Your task to perform on an android device: turn on translation in the chrome app Image 0: 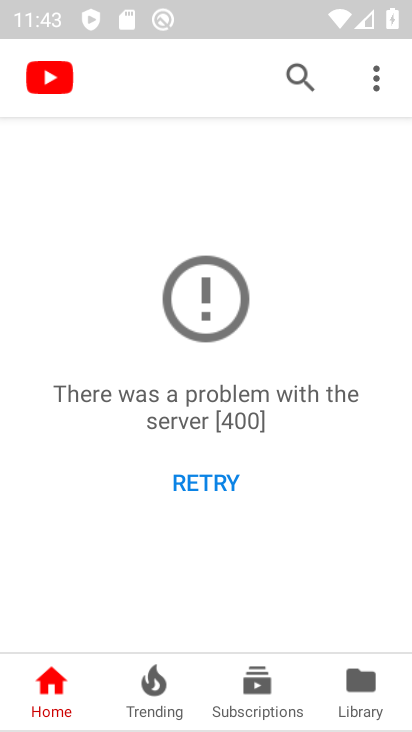
Step 0: press home button
Your task to perform on an android device: turn on translation in the chrome app Image 1: 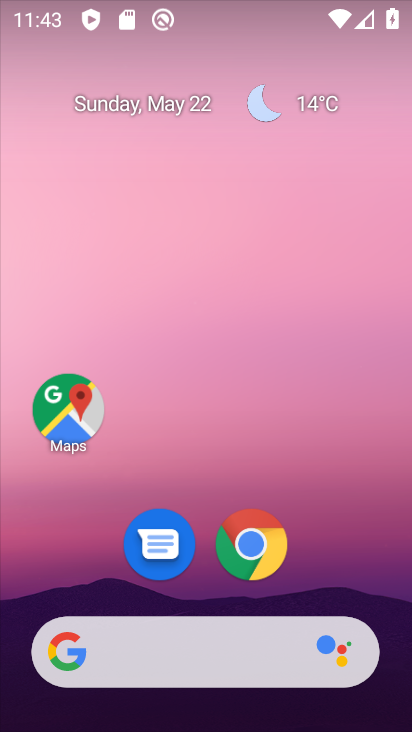
Step 1: click (240, 541)
Your task to perform on an android device: turn on translation in the chrome app Image 2: 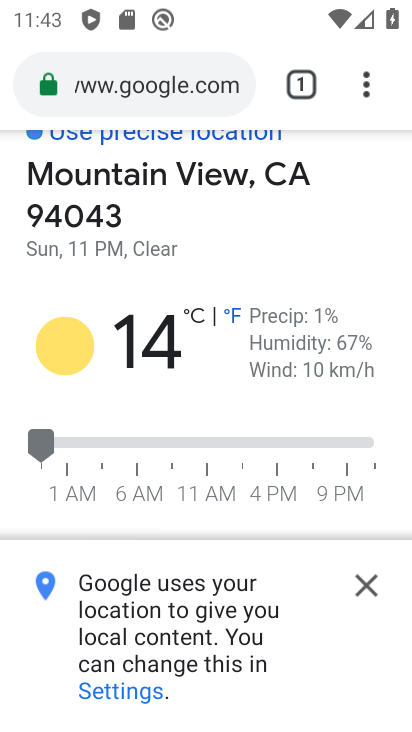
Step 2: click (367, 75)
Your task to perform on an android device: turn on translation in the chrome app Image 3: 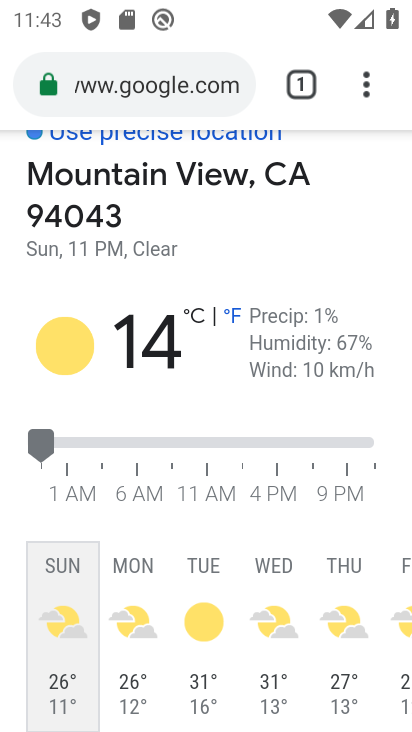
Step 3: drag from (363, 92) to (219, 595)
Your task to perform on an android device: turn on translation in the chrome app Image 4: 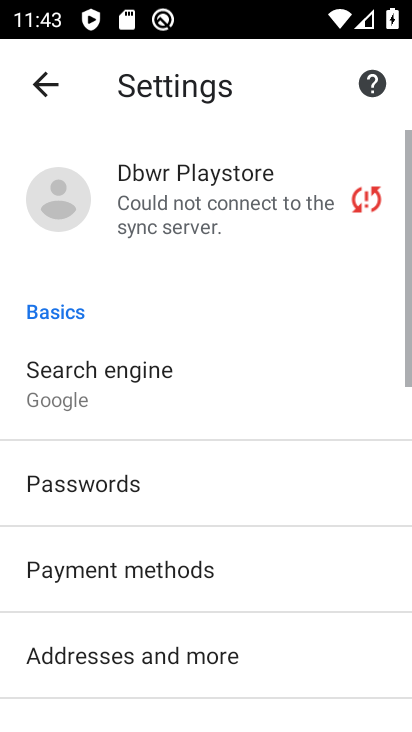
Step 4: drag from (265, 646) to (260, 85)
Your task to perform on an android device: turn on translation in the chrome app Image 5: 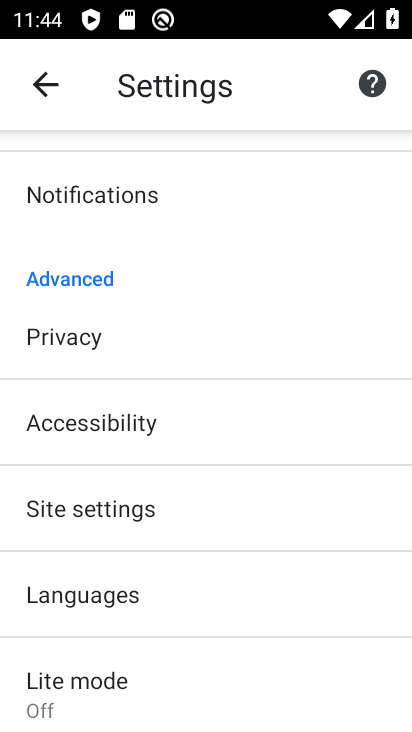
Step 5: drag from (219, 512) to (249, 243)
Your task to perform on an android device: turn on translation in the chrome app Image 6: 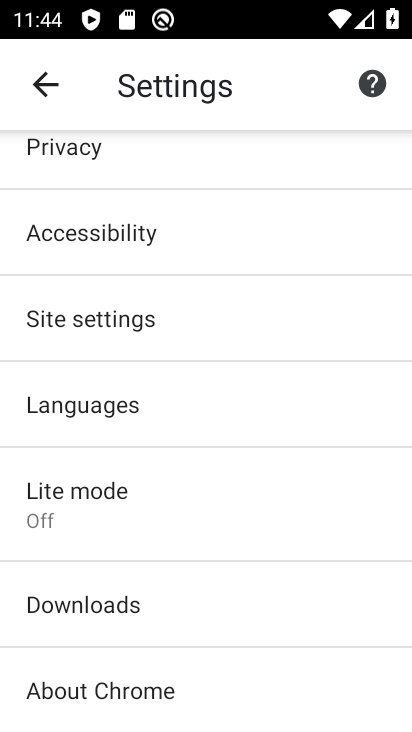
Step 6: click (126, 321)
Your task to perform on an android device: turn on translation in the chrome app Image 7: 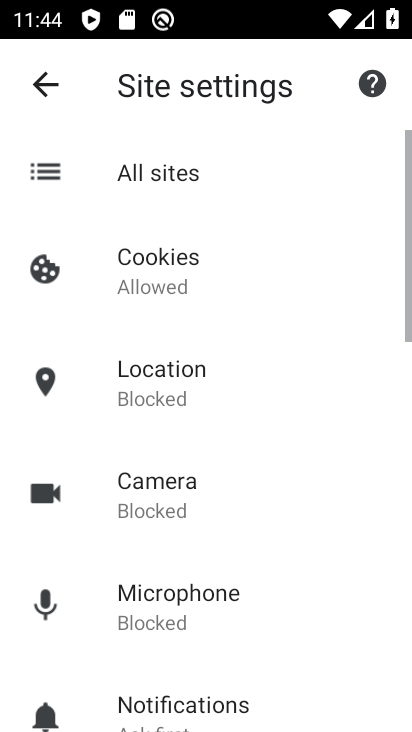
Step 7: drag from (268, 621) to (238, 254)
Your task to perform on an android device: turn on translation in the chrome app Image 8: 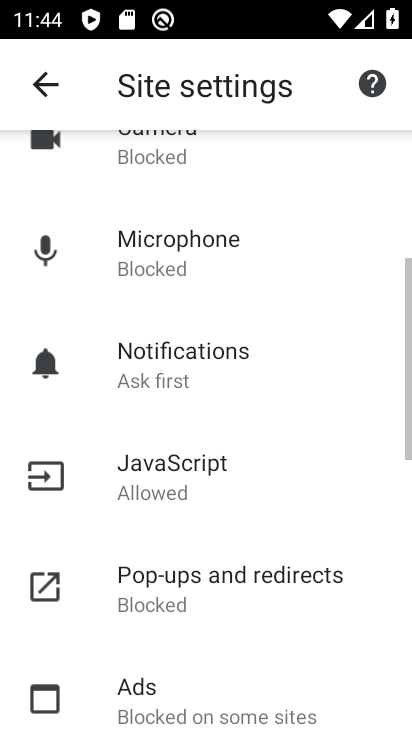
Step 8: click (43, 91)
Your task to perform on an android device: turn on translation in the chrome app Image 9: 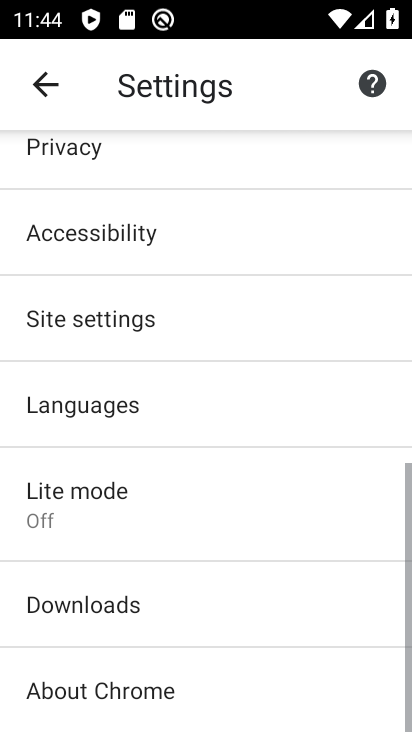
Step 9: drag from (178, 597) to (191, 402)
Your task to perform on an android device: turn on translation in the chrome app Image 10: 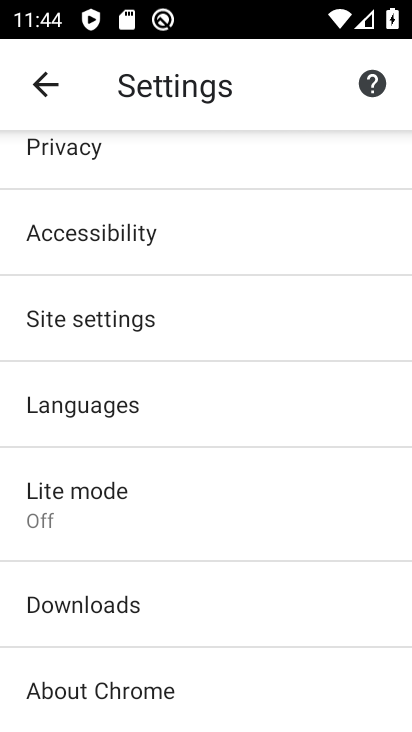
Step 10: click (95, 395)
Your task to perform on an android device: turn on translation in the chrome app Image 11: 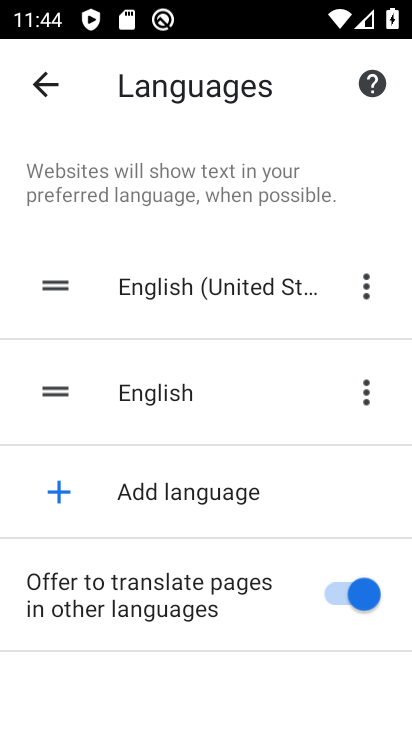
Step 11: task complete